Your task to perform on an android device: Empty the shopping cart on ebay.com. Add lenovo thinkpad to the cart on ebay.com Image 0: 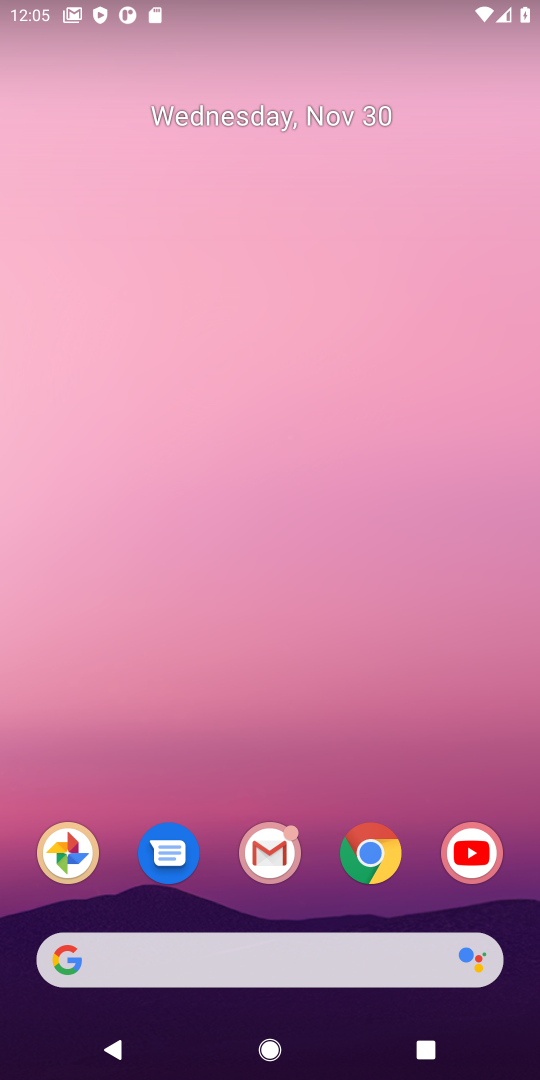
Step 0: click (380, 862)
Your task to perform on an android device: Empty the shopping cart on ebay.com. Add lenovo thinkpad to the cart on ebay.com Image 1: 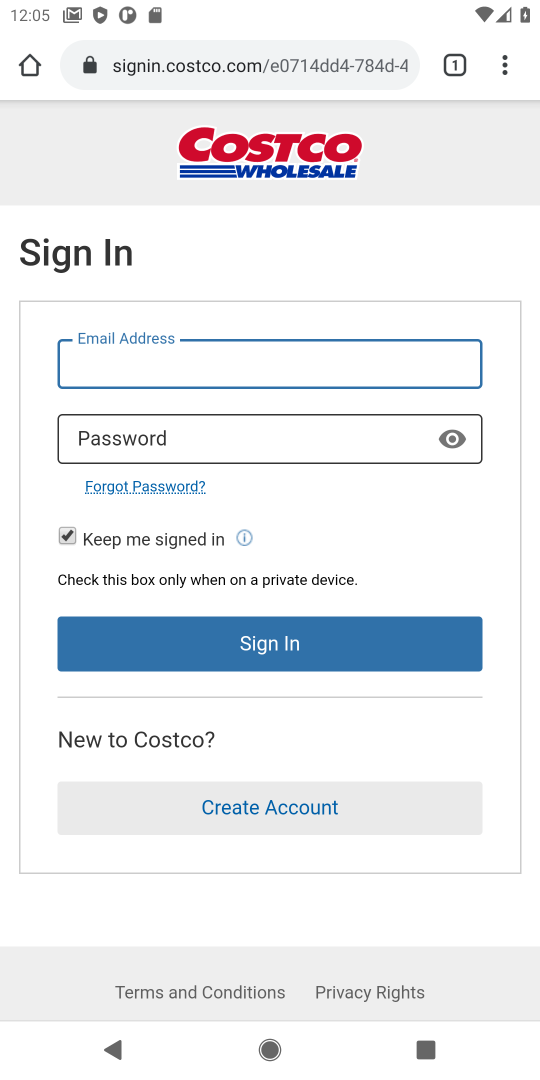
Step 1: click (216, 70)
Your task to perform on an android device: Empty the shopping cart on ebay.com. Add lenovo thinkpad to the cart on ebay.com Image 2: 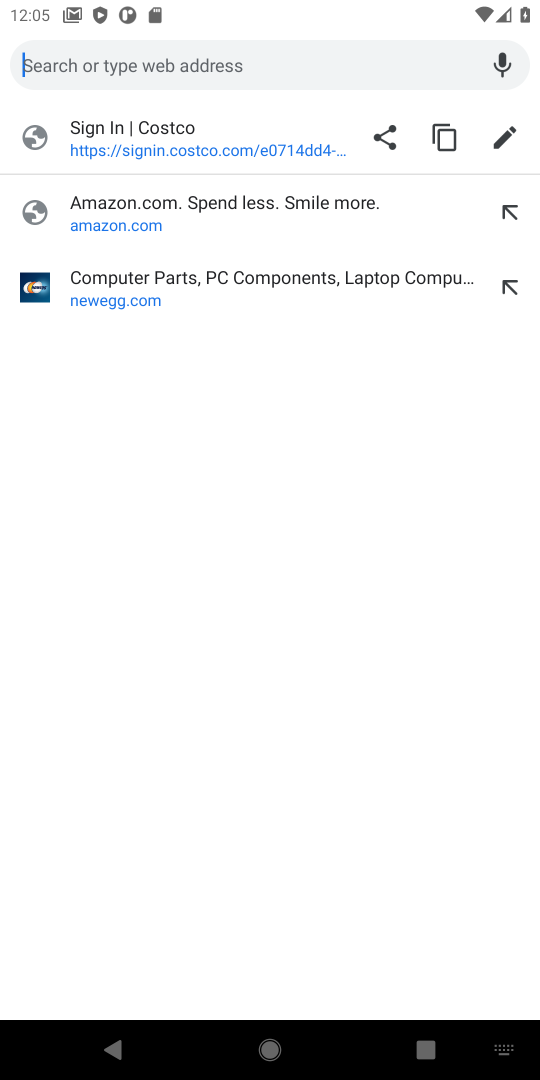
Step 2: type "ebay.com"
Your task to perform on an android device: Empty the shopping cart on ebay.com. Add lenovo thinkpad to the cart on ebay.com Image 3: 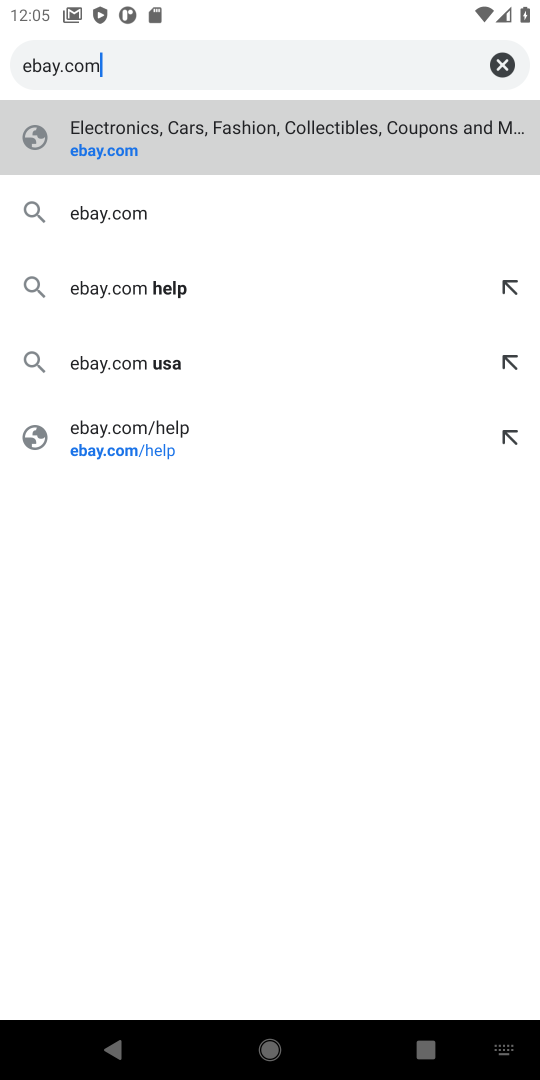
Step 3: click (114, 154)
Your task to perform on an android device: Empty the shopping cart on ebay.com. Add lenovo thinkpad to the cart on ebay.com Image 4: 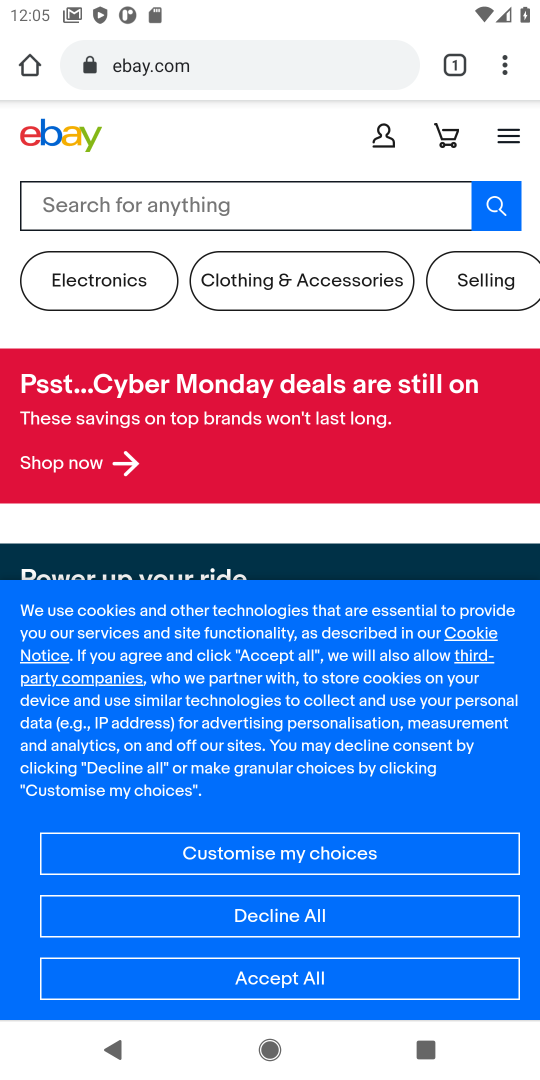
Step 4: click (451, 137)
Your task to perform on an android device: Empty the shopping cart on ebay.com. Add lenovo thinkpad to the cart on ebay.com Image 5: 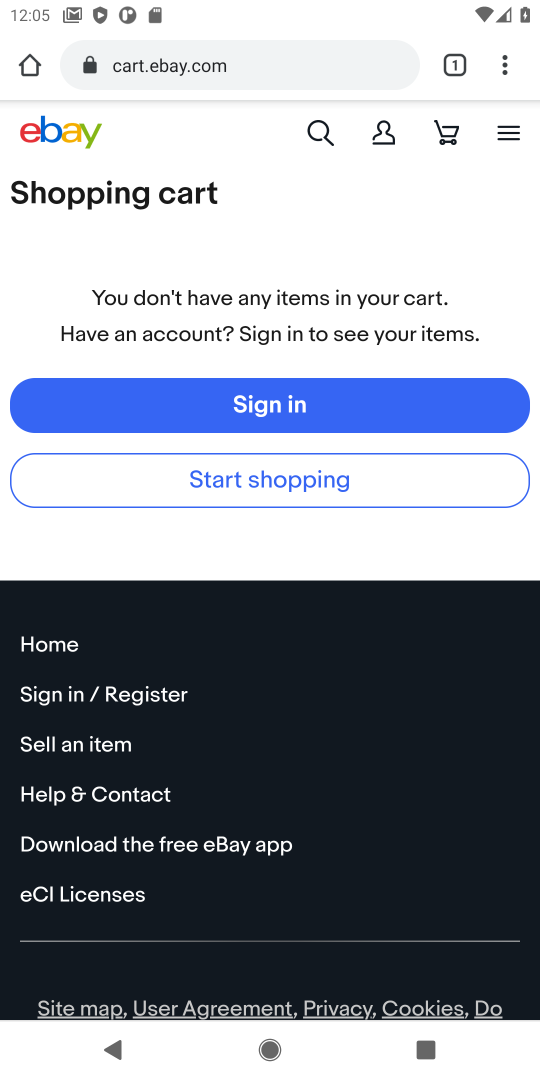
Step 5: click (321, 134)
Your task to perform on an android device: Empty the shopping cart on ebay.com. Add lenovo thinkpad to the cart on ebay.com Image 6: 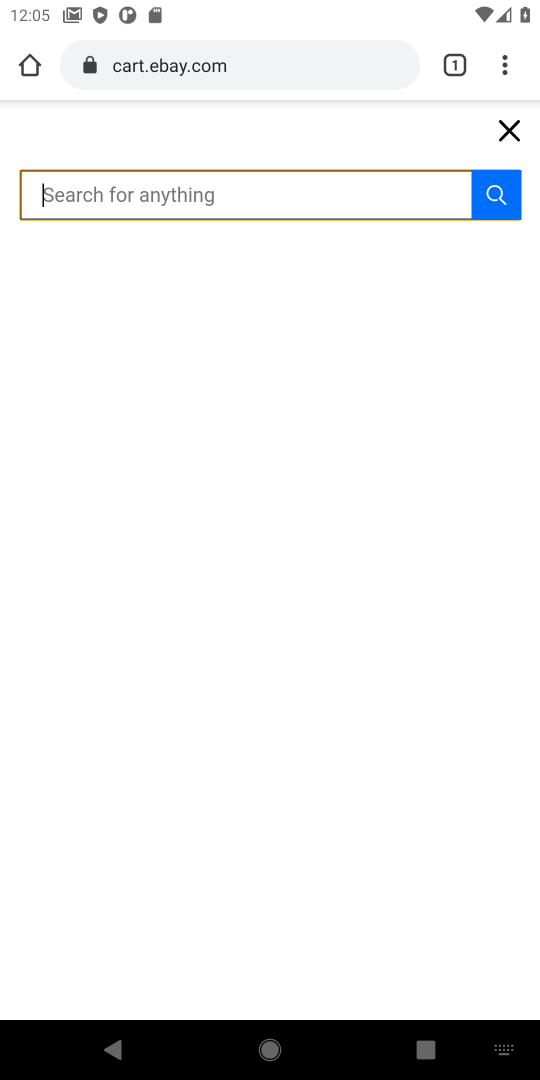
Step 6: type "lenovo thinkpad"
Your task to perform on an android device: Empty the shopping cart on ebay.com. Add lenovo thinkpad to the cart on ebay.com Image 7: 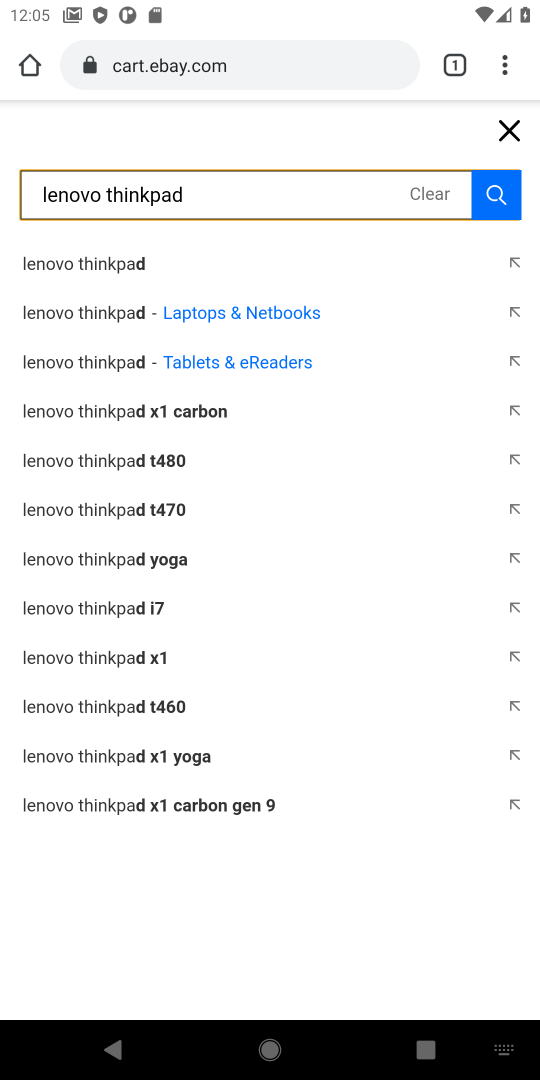
Step 7: click (62, 269)
Your task to perform on an android device: Empty the shopping cart on ebay.com. Add lenovo thinkpad to the cart on ebay.com Image 8: 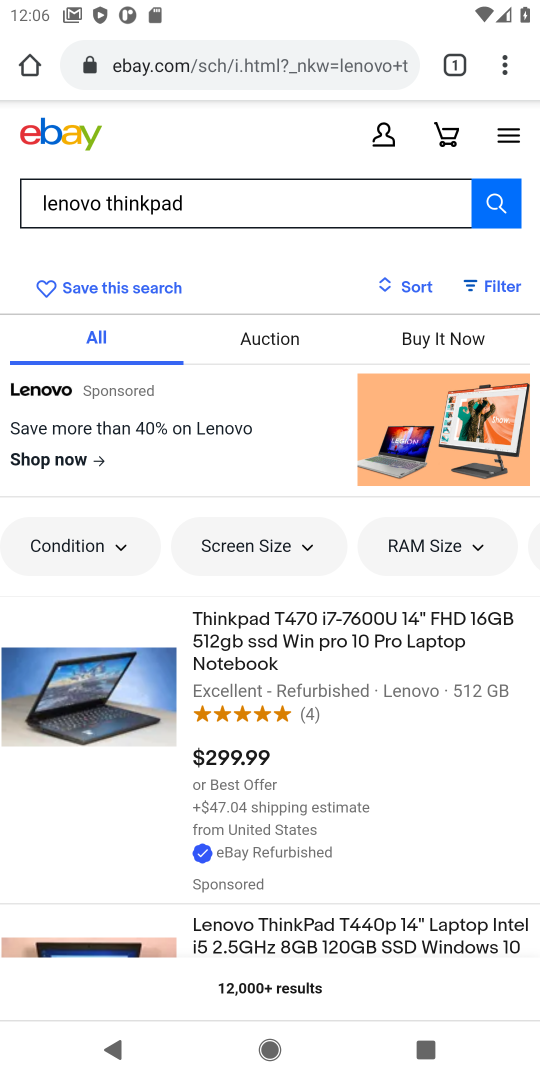
Step 8: drag from (420, 847) to (435, 549)
Your task to perform on an android device: Empty the shopping cart on ebay.com. Add lenovo thinkpad to the cart on ebay.com Image 9: 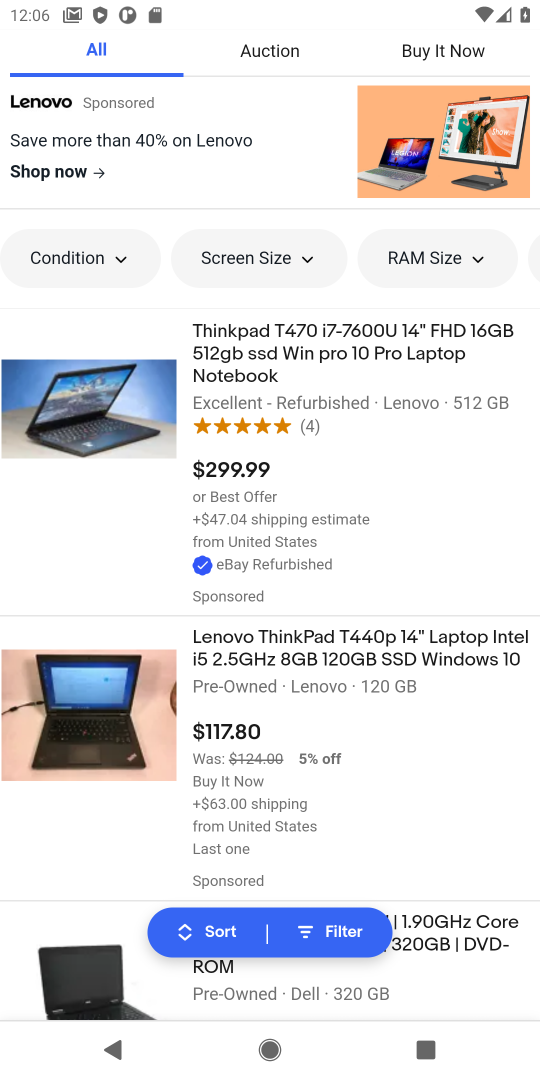
Step 9: click (253, 655)
Your task to perform on an android device: Empty the shopping cart on ebay.com. Add lenovo thinkpad to the cart on ebay.com Image 10: 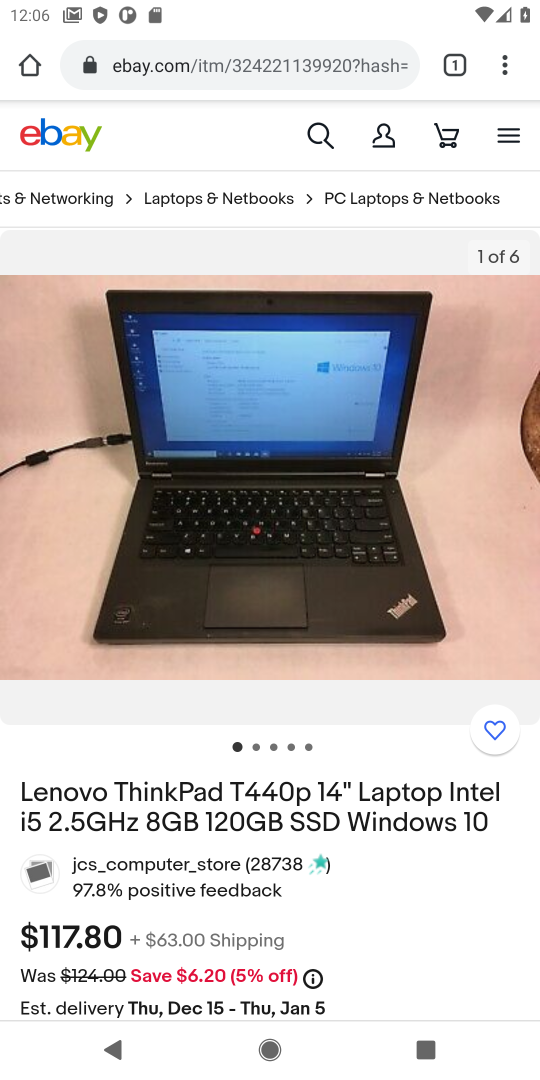
Step 10: drag from (402, 875) to (396, 430)
Your task to perform on an android device: Empty the shopping cart on ebay.com. Add lenovo thinkpad to the cart on ebay.com Image 11: 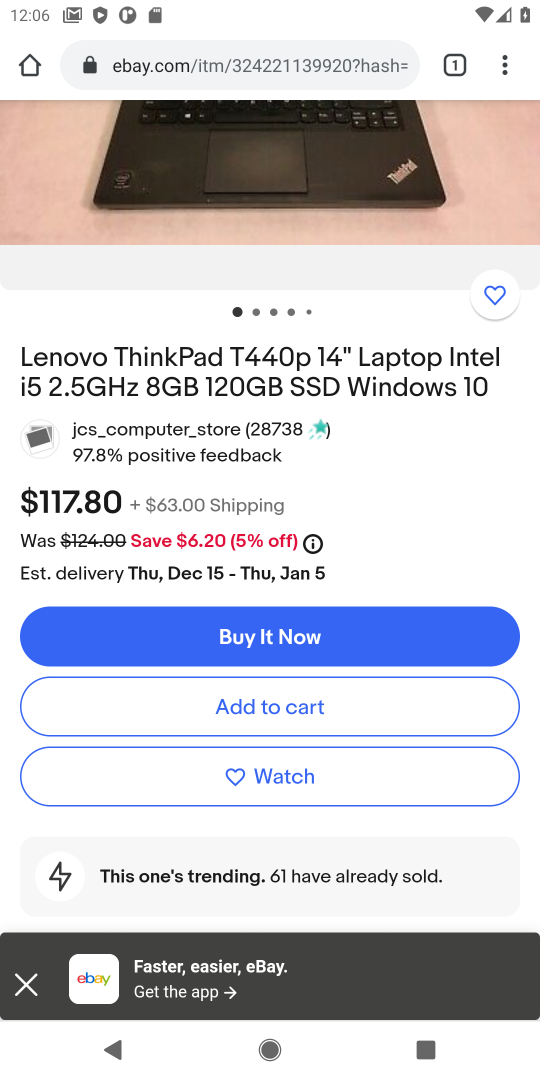
Step 11: click (244, 695)
Your task to perform on an android device: Empty the shopping cart on ebay.com. Add lenovo thinkpad to the cart on ebay.com Image 12: 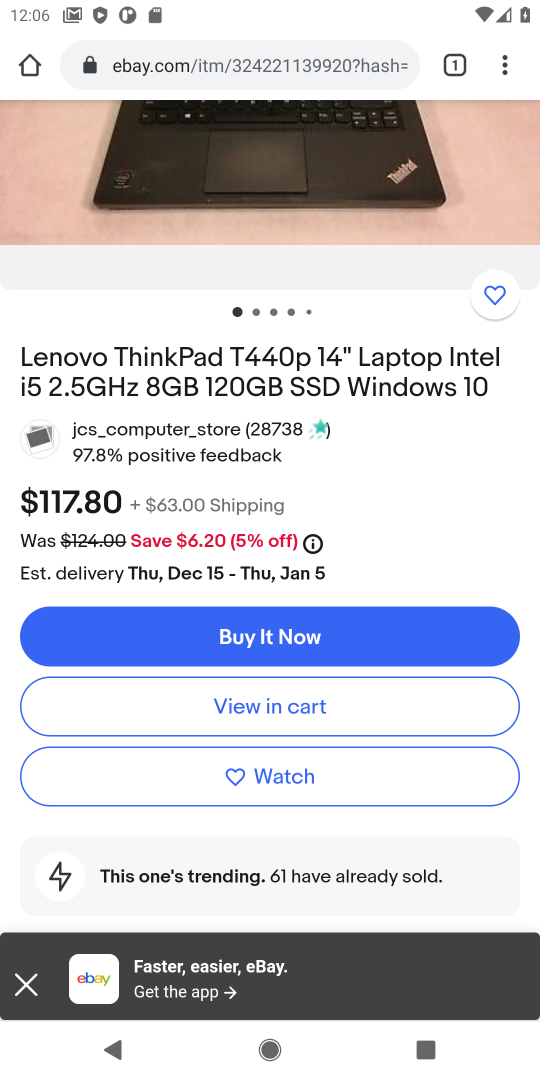
Step 12: task complete